Your task to perform on an android device: toggle notifications settings in the gmail app Image 0: 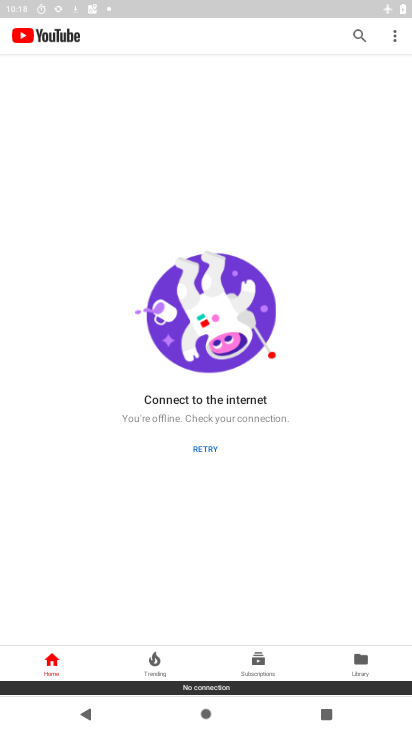
Step 0: press home button
Your task to perform on an android device: toggle notifications settings in the gmail app Image 1: 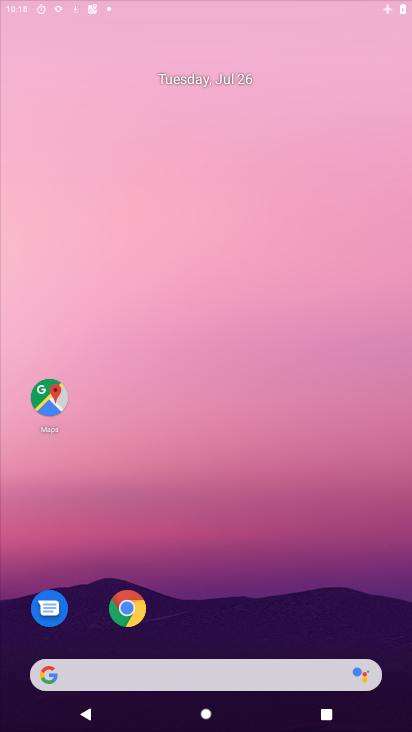
Step 1: drag from (222, 612) to (208, 168)
Your task to perform on an android device: toggle notifications settings in the gmail app Image 2: 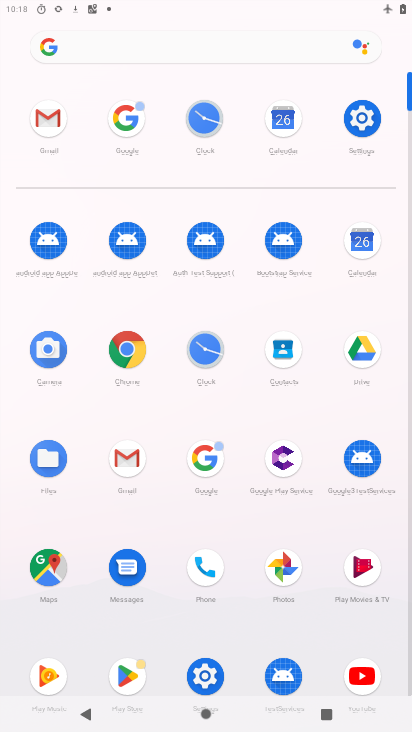
Step 2: click (59, 124)
Your task to perform on an android device: toggle notifications settings in the gmail app Image 3: 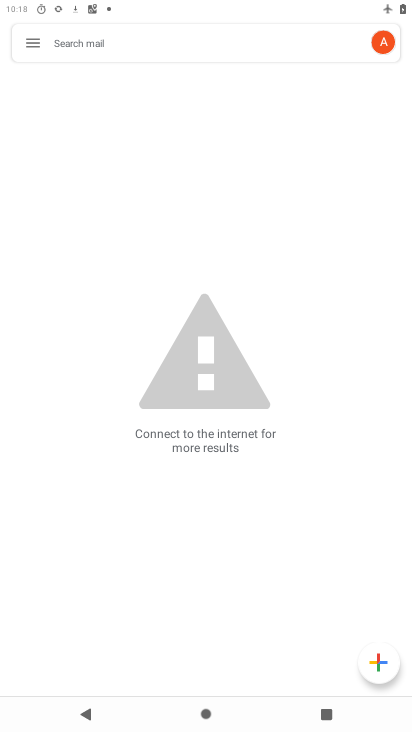
Step 3: click (22, 53)
Your task to perform on an android device: toggle notifications settings in the gmail app Image 4: 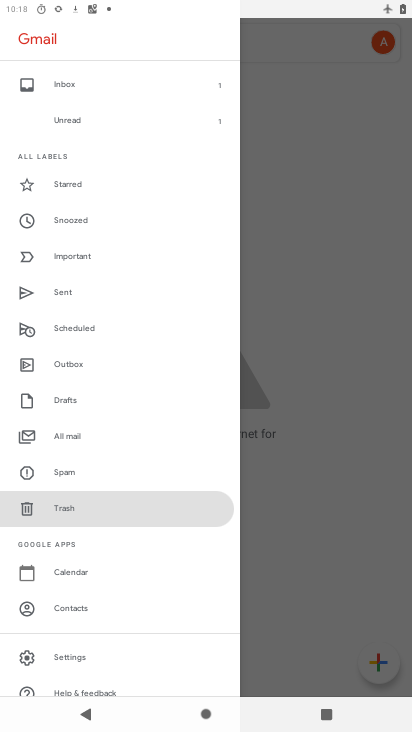
Step 4: click (43, 643)
Your task to perform on an android device: toggle notifications settings in the gmail app Image 5: 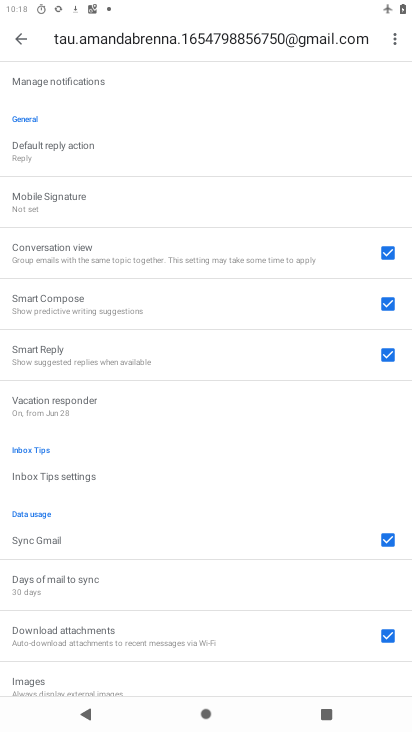
Step 5: click (58, 83)
Your task to perform on an android device: toggle notifications settings in the gmail app Image 6: 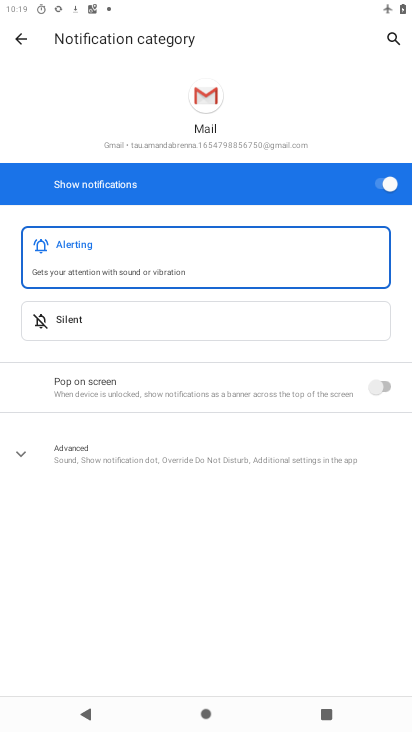
Step 6: click (373, 183)
Your task to perform on an android device: toggle notifications settings in the gmail app Image 7: 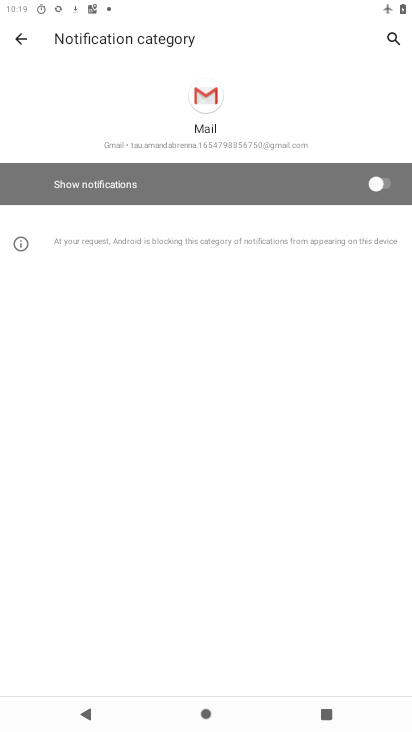
Step 7: task complete